Your task to perform on an android device: Is it going to rain tomorrow? Image 0: 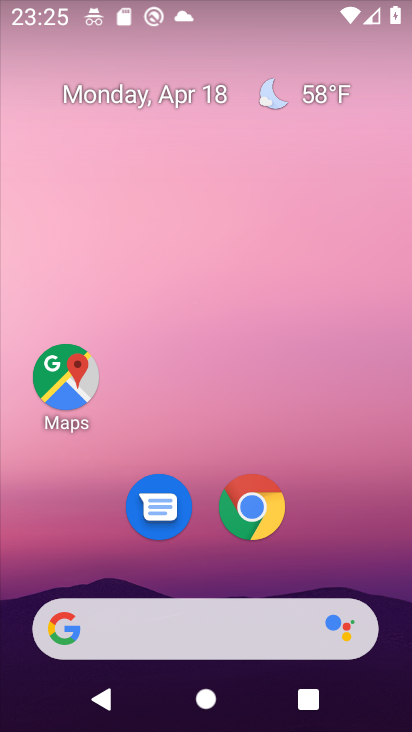
Step 0: click (327, 94)
Your task to perform on an android device: Is it going to rain tomorrow? Image 1: 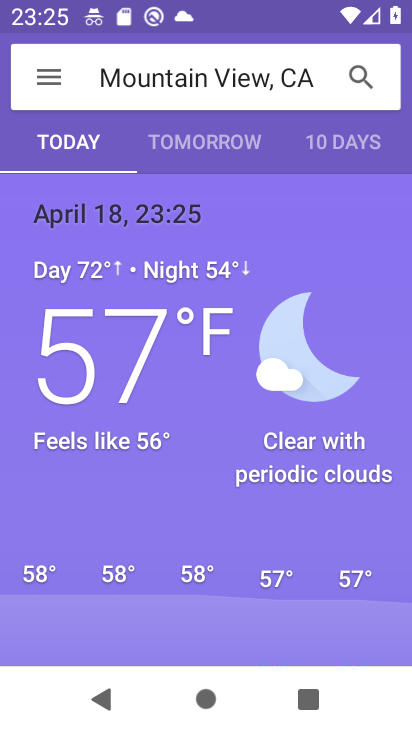
Step 1: click (211, 147)
Your task to perform on an android device: Is it going to rain tomorrow? Image 2: 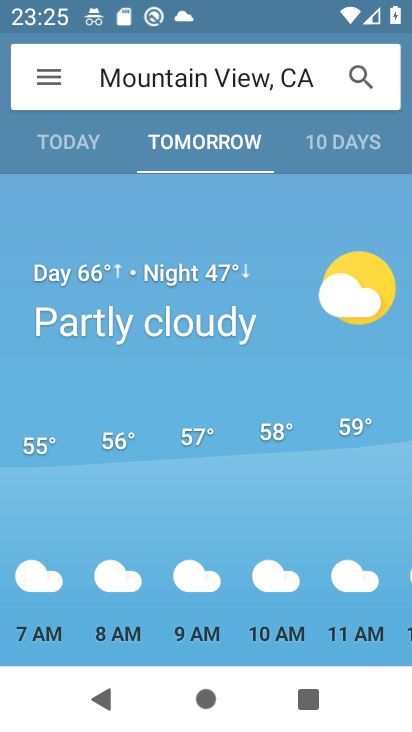
Step 2: task complete